Your task to perform on an android device: Go to location settings Image 0: 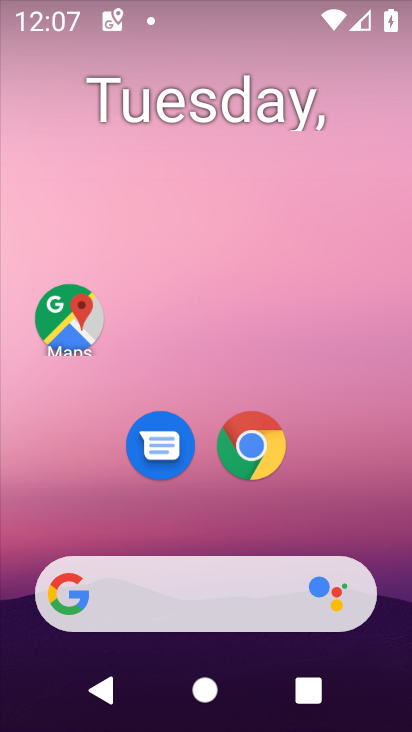
Step 0: drag from (318, 531) to (273, 120)
Your task to perform on an android device: Go to location settings Image 1: 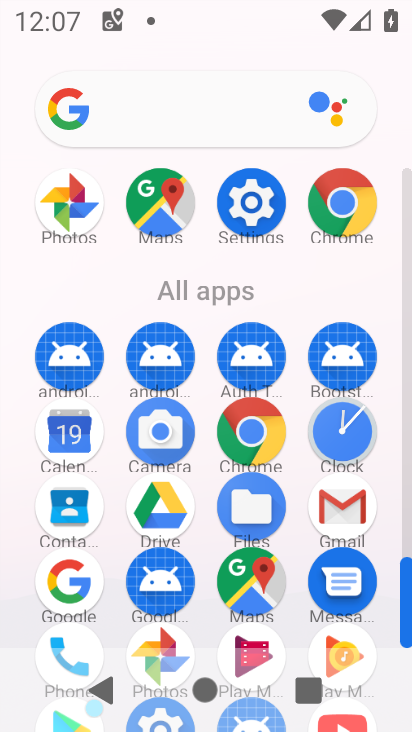
Step 1: click (244, 217)
Your task to perform on an android device: Go to location settings Image 2: 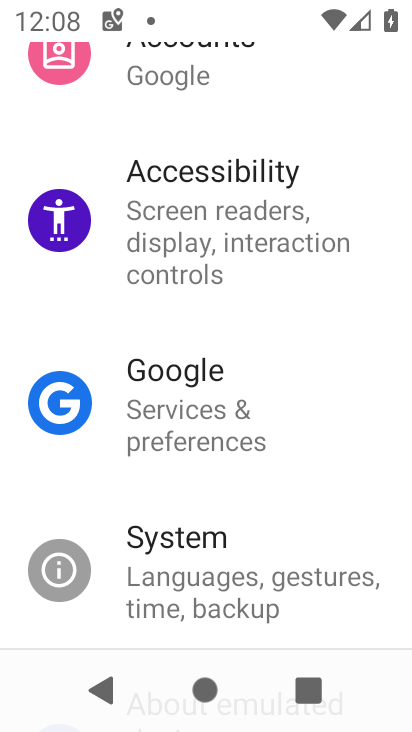
Step 2: drag from (270, 182) to (267, 571)
Your task to perform on an android device: Go to location settings Image 3: 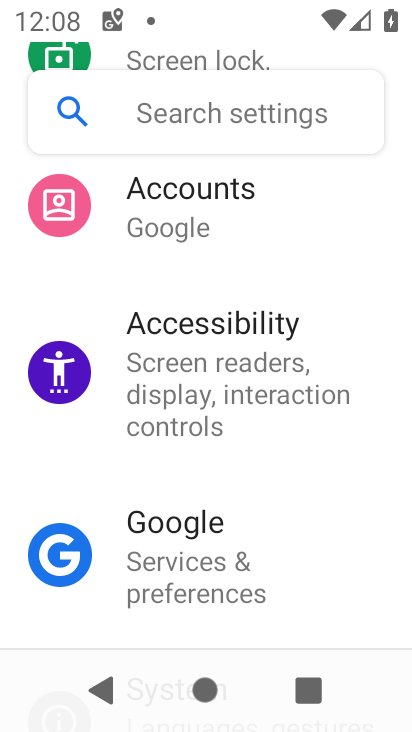
Step 3: drag from (281, 198) to (255, 565)
Your task to perform on an android device: Go to location settings Image 4: 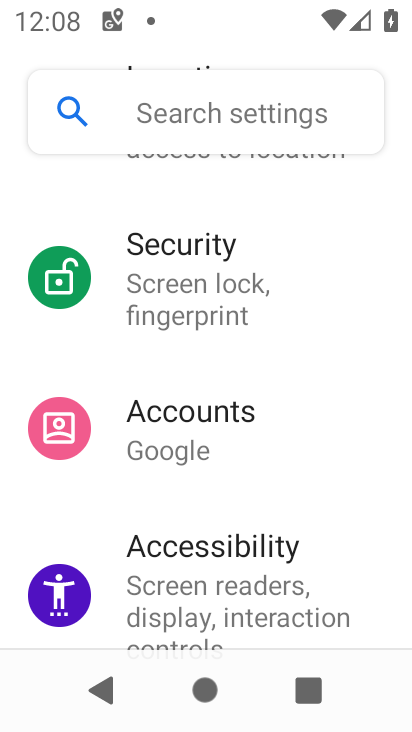
Step 4: drag from (186, 262) to (204, 603)
Your task to perform on an android device: Go to location settings Image 5: 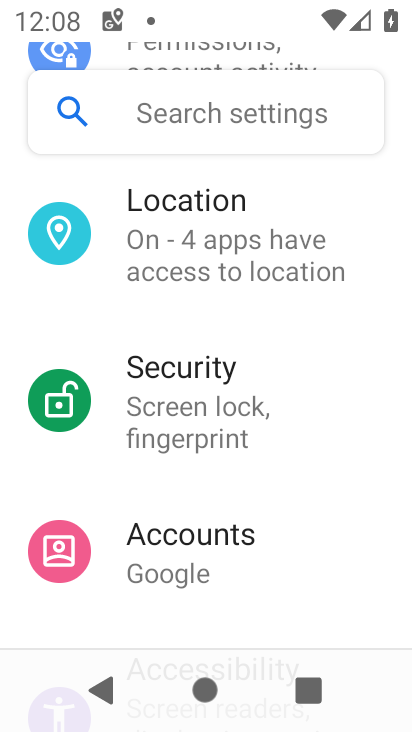
Step 5: click (206, 242)
Your task to perform on an android device: Go to location settings Image 6: 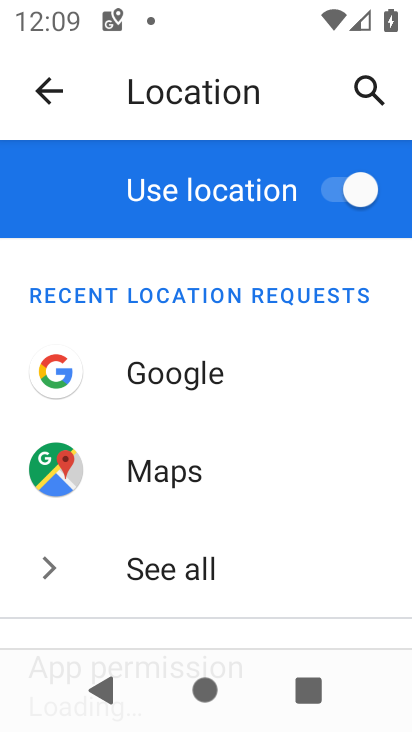
Step 6: task complete